Your task to perform on an android device: Check out the best rated books on Goodreads. Image 0: 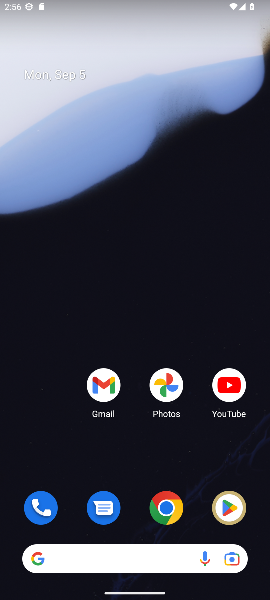
Step 0: click (114, 555)
Your task to perform on an android device: Check out the best rated books on Goodreads. Image 1: 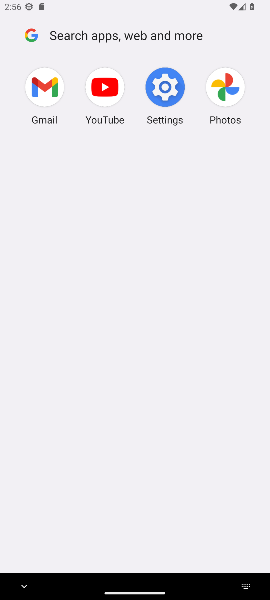
Step 1: type "the best rated books on Goodreads."
Your task to perform on an android device: Check out the best rated books on Goodreads. Image 2: 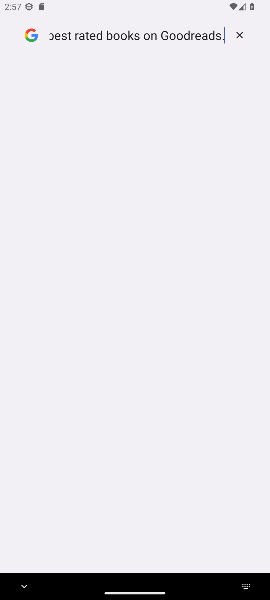
Step 2: click (236, 46)
Your task to perform on an android device: Check out the best rated books on Goodreads. Image 3: 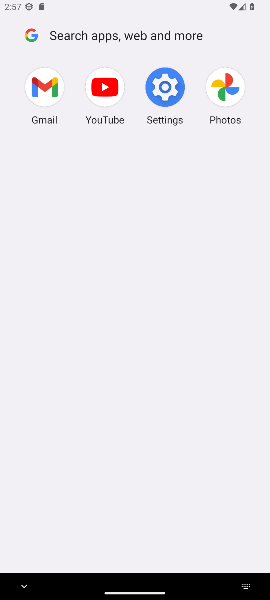
Step 3: press home button
Your task to perform on an android device: Check out the best rated books on Goodreads. Image 4: 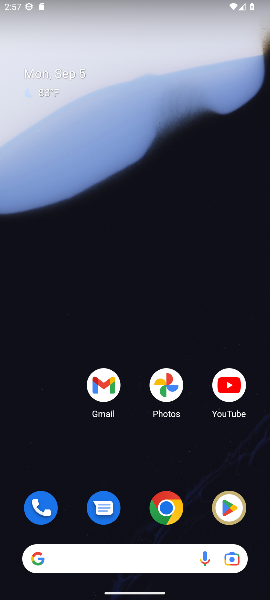
Step 4: drag from (148, 291) to (151, 60)
Your task to perform on an android device: Check out the best rated books on Goodreads. Image 5: 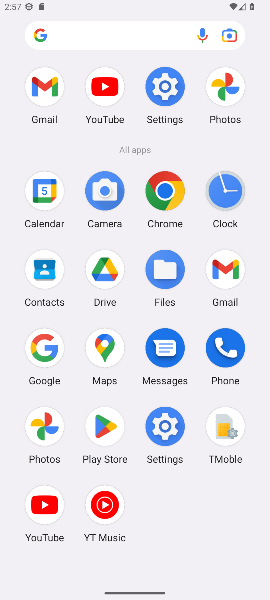
Step 5: click (48, 357)
Your task to perform on an android device: Check out the best rated books on Goodreads. Image 6: 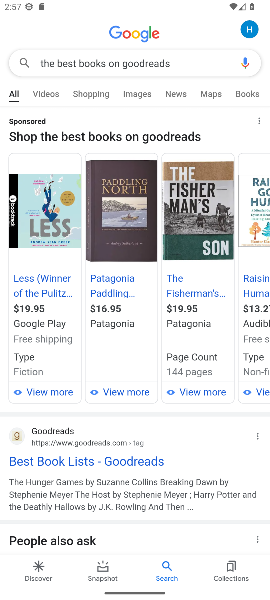
Step 6: click (199, 56)
Your task to perform on an android device: Check out the best rated books on Goodreads. Image 7: 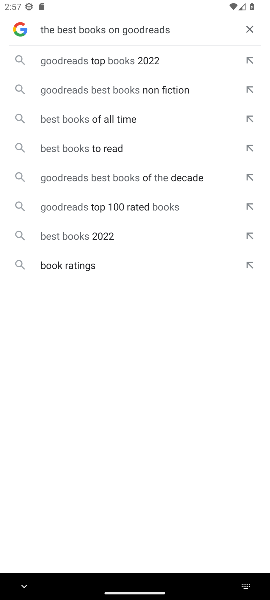
Step 7: click (243, 33)
Your task to perform on an android device: Check out the best rated books on Goodreads. Image 8: 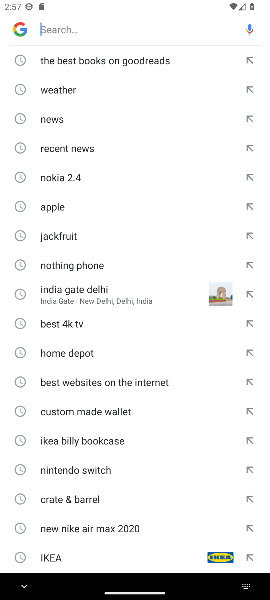
Step 8: type "the best rated books on Goodreads."
Your task to perform on an android device: Check out the best rated books on Goodreads. Image 9: 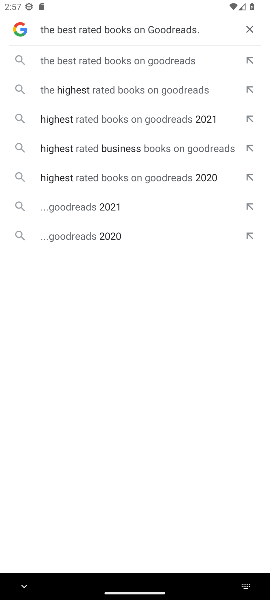
Step 9: click (130, 64)
Your task to perform on an android device: Check out the best rated books on Goodreads. Image 10: 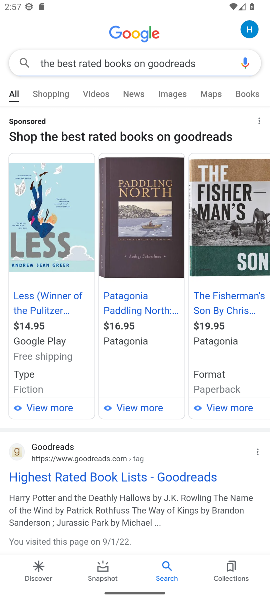
Step 10: task complete